Your task to perform on an android device: toggle priority inbox in the gmail app Image 0: 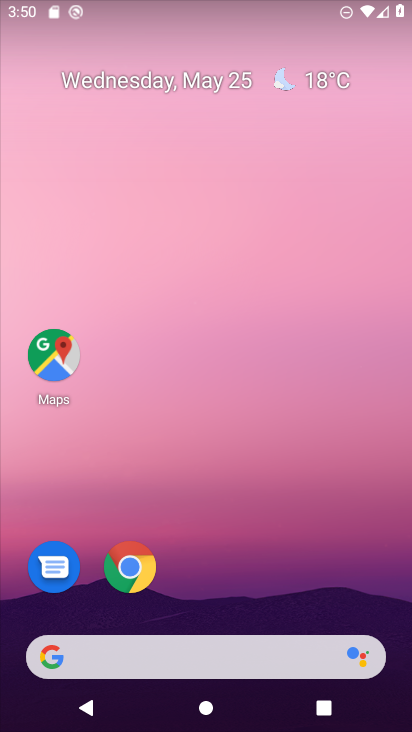
Step 0: drag from (385, 573) to (371, 218)
Your task to perform on an android device: toggle priority inbox in the gmail app Image 1: 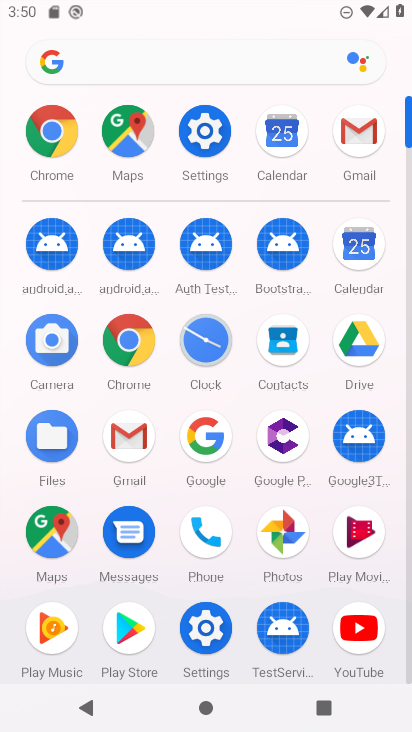
Step 1: click (364, 151)
Your task to perform on an android device: toggle priority inbox in the gmail app Image 2: 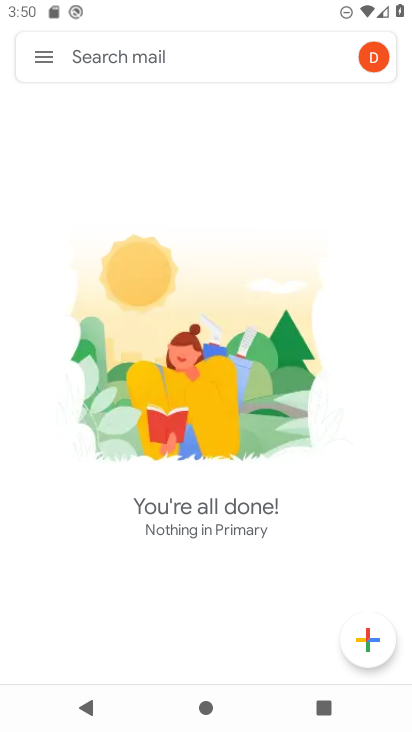
Step 2: click (50, 58)
Your task to perform on an android device: toggle priority inbox in the gmail app Image 3: 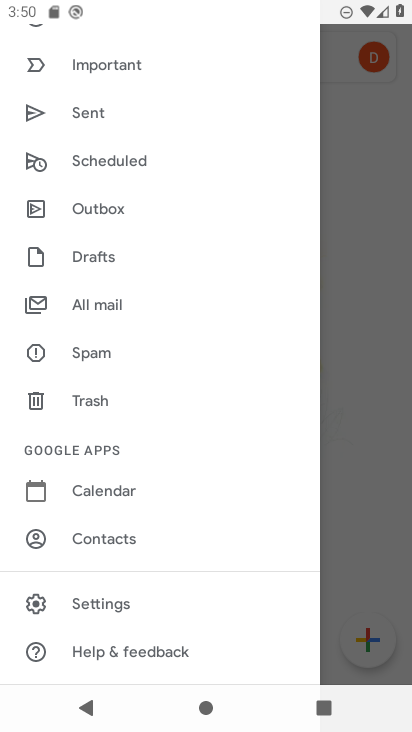
Step 3: drag from (239, 224) to (235, 300)
Your task to perform on an android device: toggle priority inbox in the gmail app Image 4: 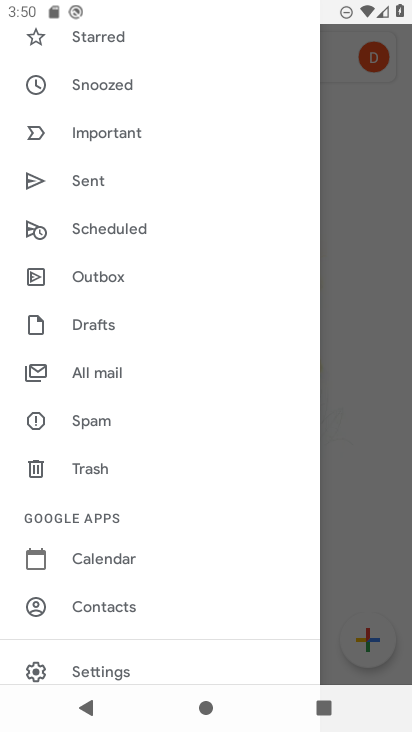
Step 4: drag from (232, 176) to (230, 253)
Your task to perform on an android device: toggle priority inbox in the gmail app Image 5: 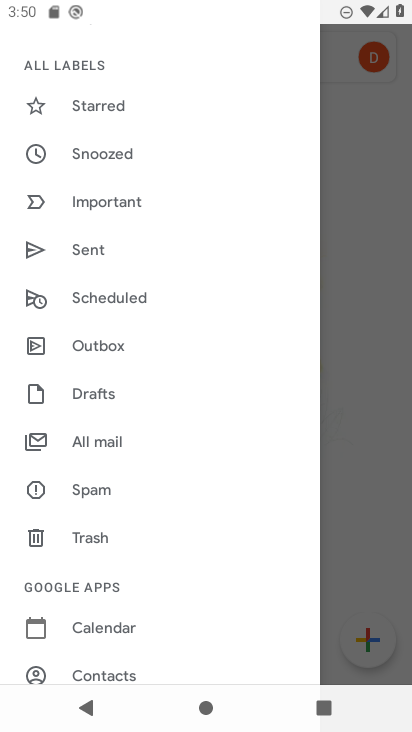
Step 5: drag from (233, 150) to (233, 220)
Your task to perform on an android device: toggle priority inbox in the gmail app Image 6: 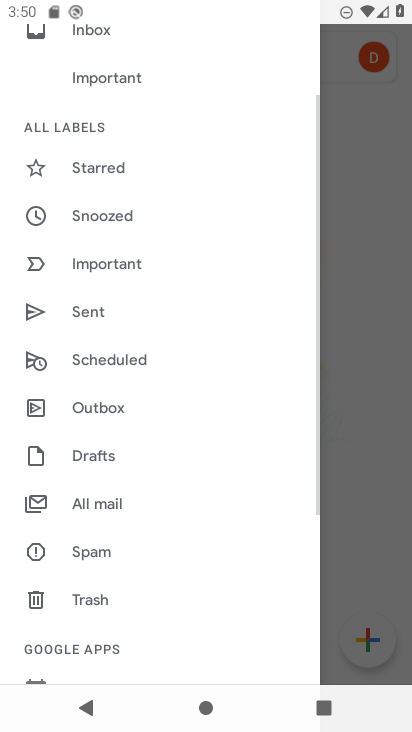
Step 6: drag from (236, 139) to (234, 244)
Your task to perform on an android device: toggle priority inbox in the gmail app Image 7: 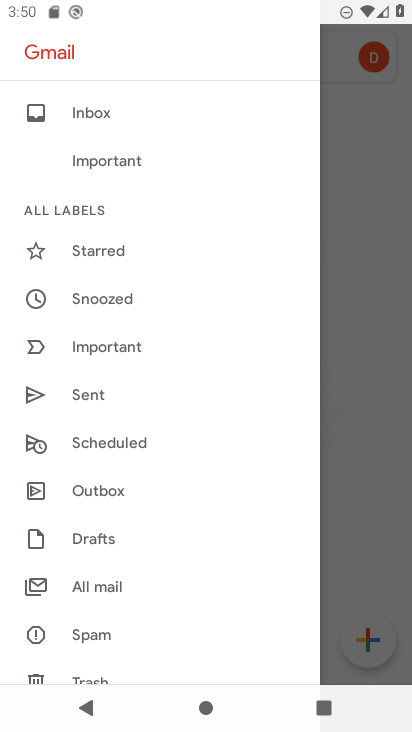
Step 7: drag from (250, 358) to (236, 279)
Your task to perform on an android device: toggle priority inbox in the gmail app Image 8: 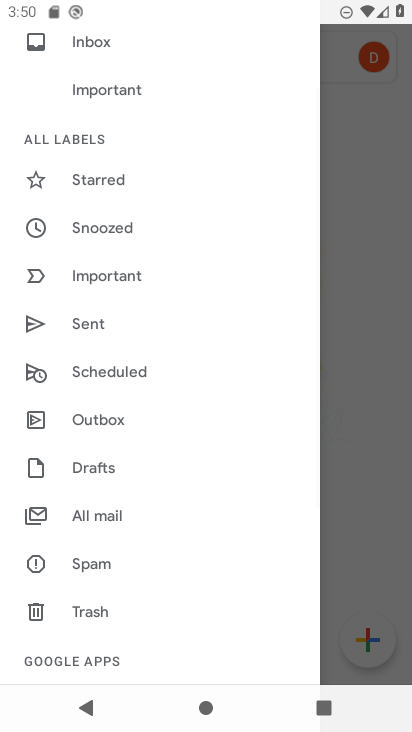
Step 8: drag from (229, 383) to (228, 308)
Your task to perform on an android device: toggle priority inbox in the gmail app Image 9: 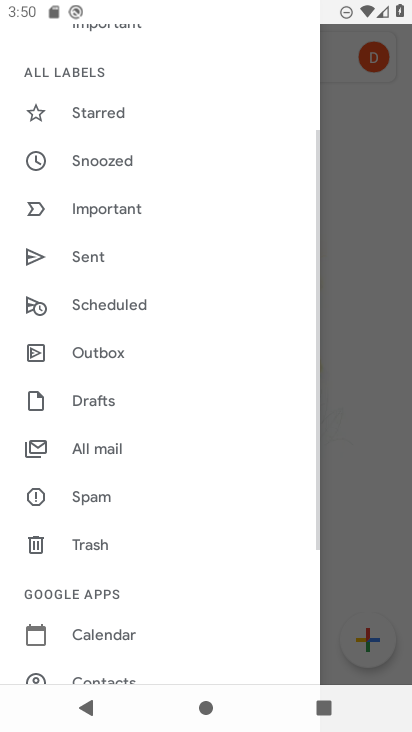
Step 9: drag from (240, 420) to (253, 330)
Your task to perform on an android device: toggle priority inbox in the gmail app Image 10: 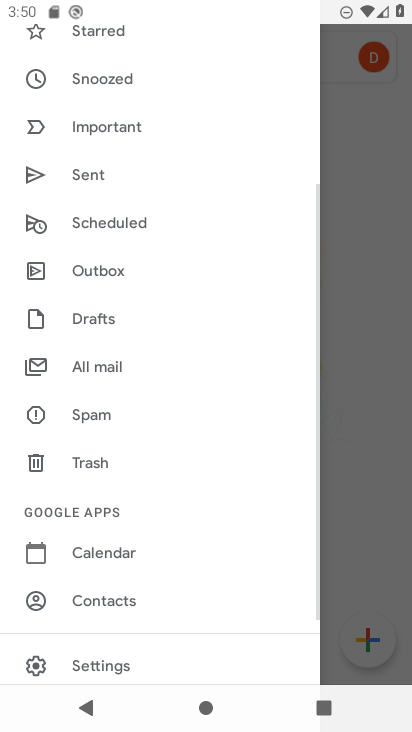
Step 10: drag from (228, 460) to (240, 336)
Your task to perform on an android device: toggle priority inbox in the gmail app Image 11: 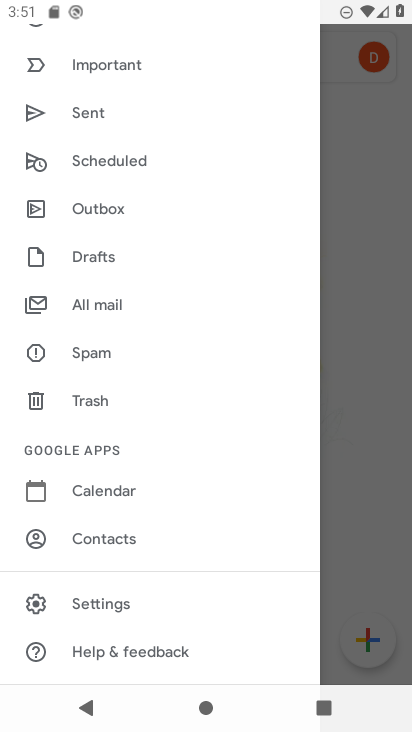
Step 11: click (181, 600)
Your task to perform on an android device: toggle priority inbox in the gmail app Image 12: 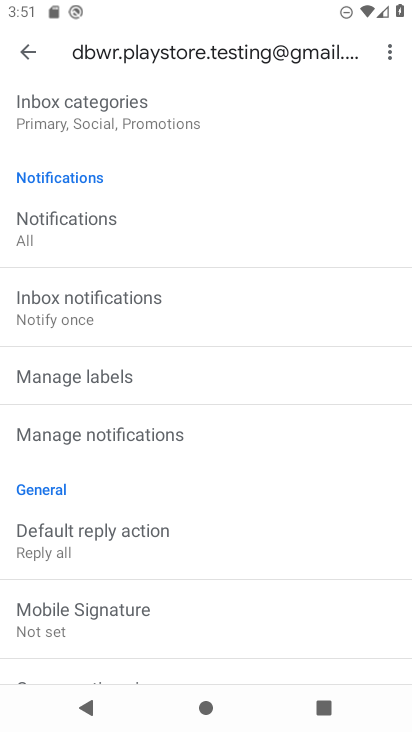
Step 12: drag from (258, 563) to (294, 455)
Your task to perform on an android device: toggle priority inbox in the gmail app Image 13: 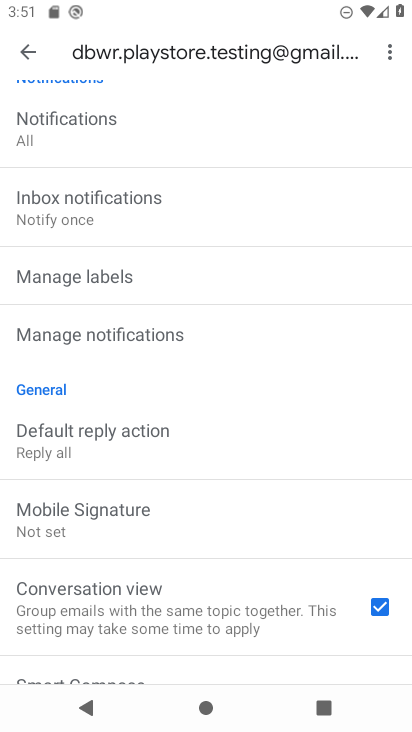
Step 13: drag from (293, 539) to (294, 443)
Your task to perform on an android device: toggle priority inbox in the gmail app Image 14: 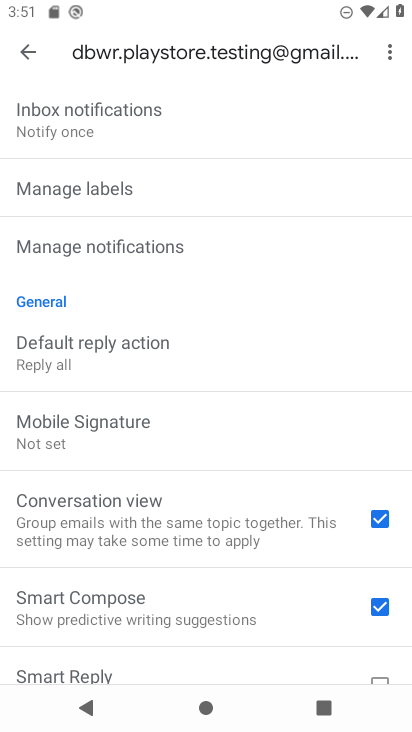
Step 14: drag from (287, 594) to (282, 501)
Your task to perform on an android device: toggle priority inbox in the gmail app Image 15: 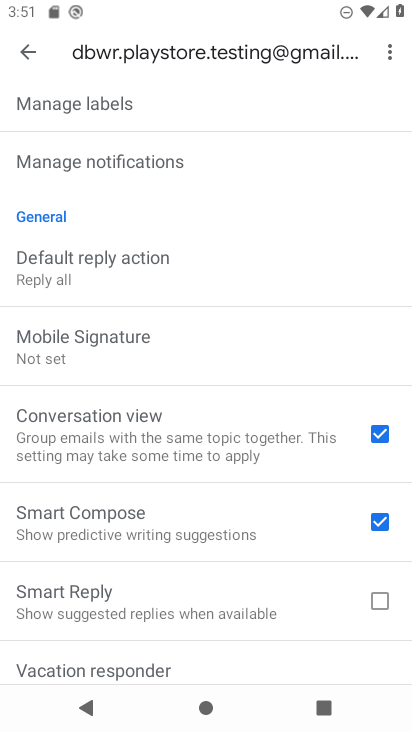
Step 15: drag from (268, 589) to (296, 484)
Your task to perform on an android device: toggle priority inbox in the gmail app Image 16: 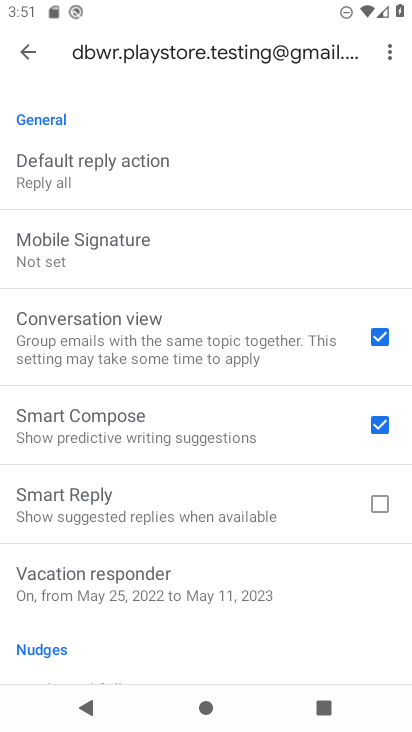
Step 16: drag from (317, 532) to (317, 442)
Your task to perform on an android device: toggle priority inbox in the gmail app Image 17: 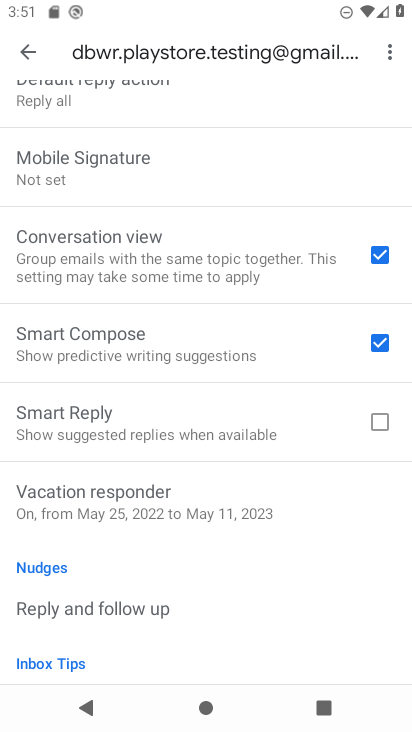
Step 17: drag from (327, 543) to (329, 450)
Your task to perform on an android device: toggle priority inbox in the gmail app Image 18: 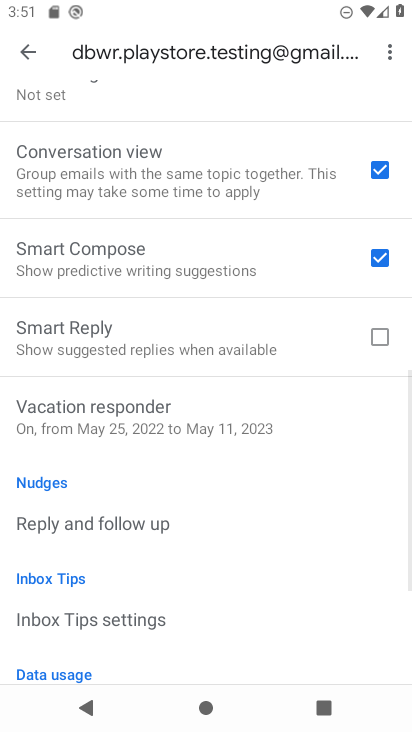
Step 18: drag from (326, 581) to (332, 482)
Your task to perform on an android device: toggle priority inbox in the gmail app Image 19: 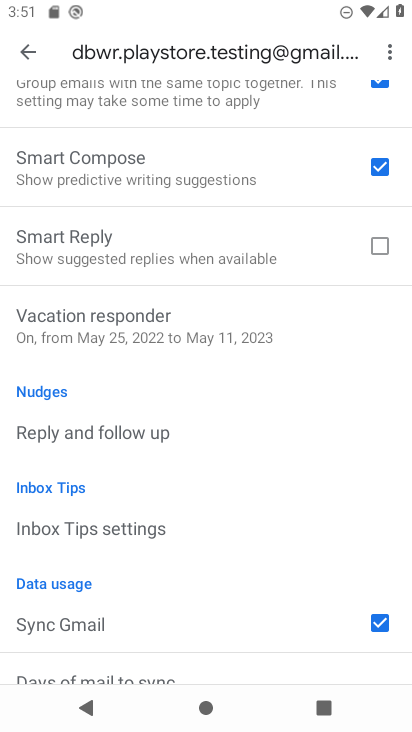
Step 19: drag from (312, 607) to (299, 505)
Your task to perform on an android device: toggle priority inbox in the gmail app Image 20: 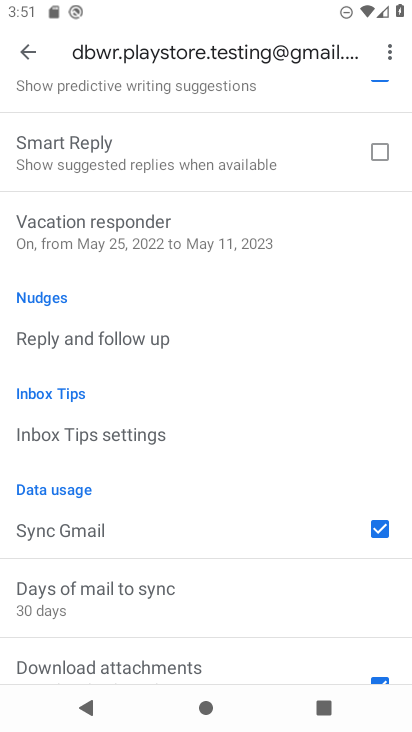
Step 20: drag from (291, 617) to (280, 484)
Your task to perform on an android device: toggle priority inbox in the gmail app Image 21: 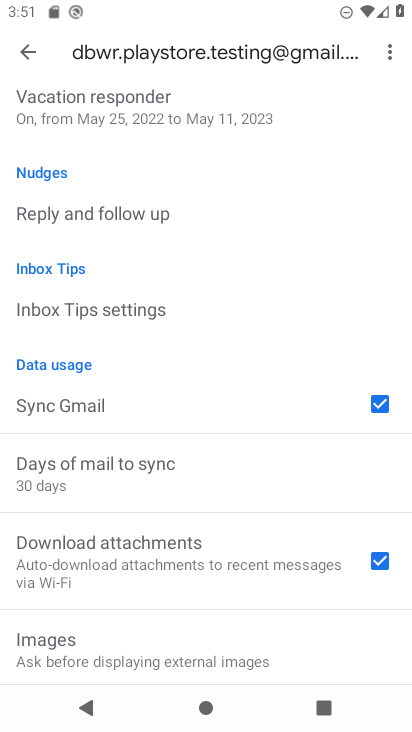
Step 21: drag from (295, 301) to (295, 448)
Your task to perform on an android device: toggle priority inbox in the gmail app Image 22: 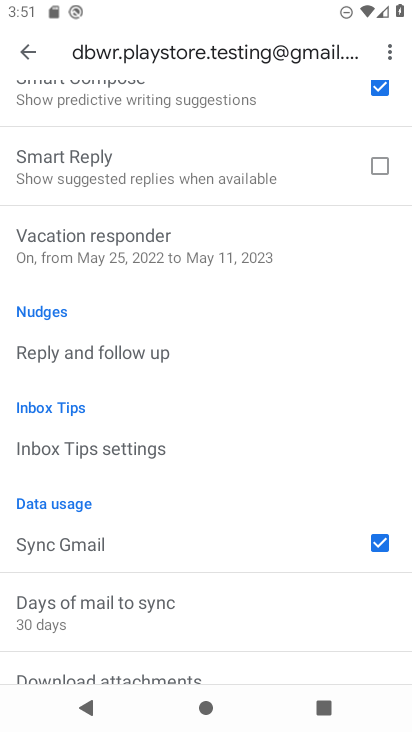
Step 22: drag from (287, 321) to (299, 440)
Your task to perform on an android device: toggle priority inbox in the gmail app Image 23: 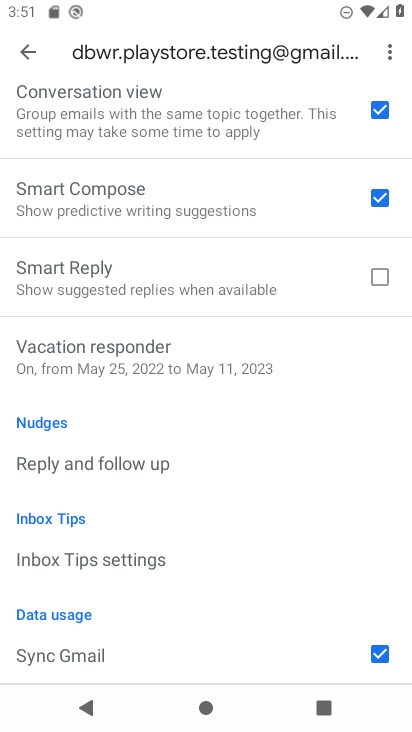
Step 23: drag from (309, 266) to (316, 360)
Your task to perform on an android device: toggle priority inbox in the gmail app Image 24: 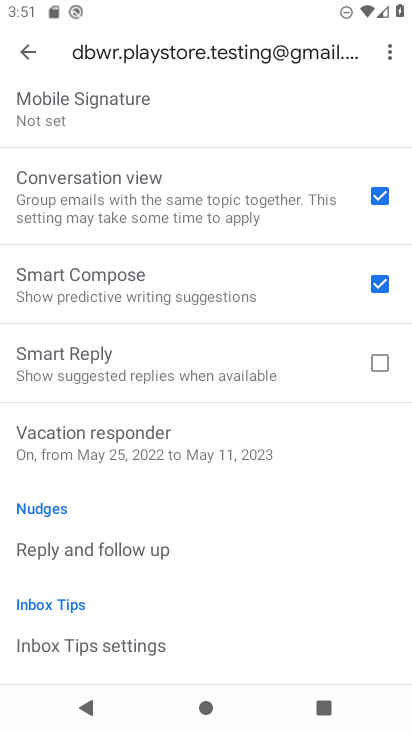
Step 24: drag from (305, 244) to (319, 342)
Your task to perform on an android device: toggle priority inbox in the gmail app Image 25: 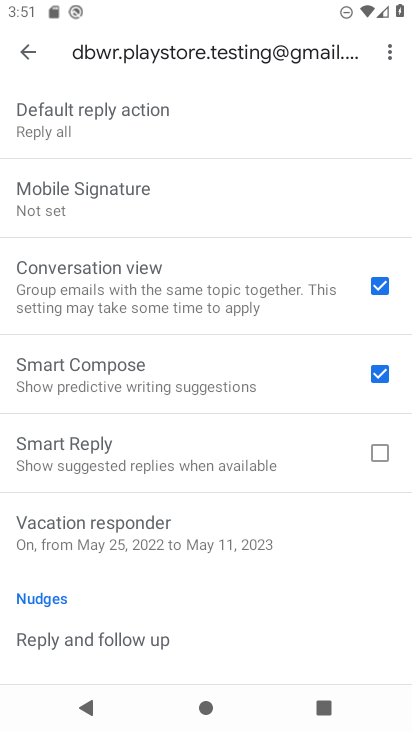
Step 25: drag from (299, 222) to (277, 341)
Your task to perform on an android device: toggle priority inbox in the gmail app Image 26: 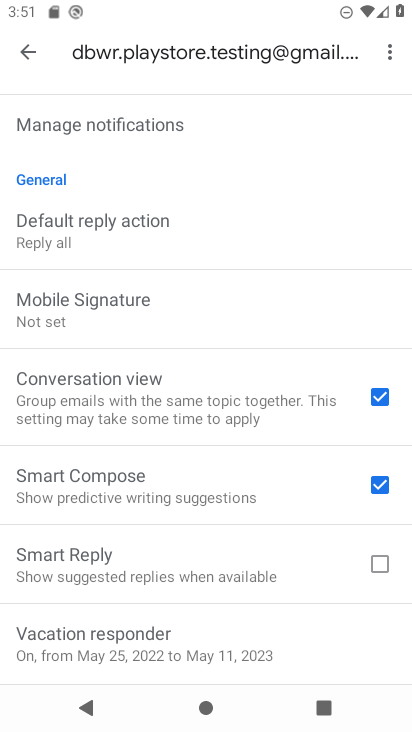
Step 26: drag from (277, 219) to (284, 319)
Your task to perform on an android device: toggle priority inbox in the gmail app Image 27: 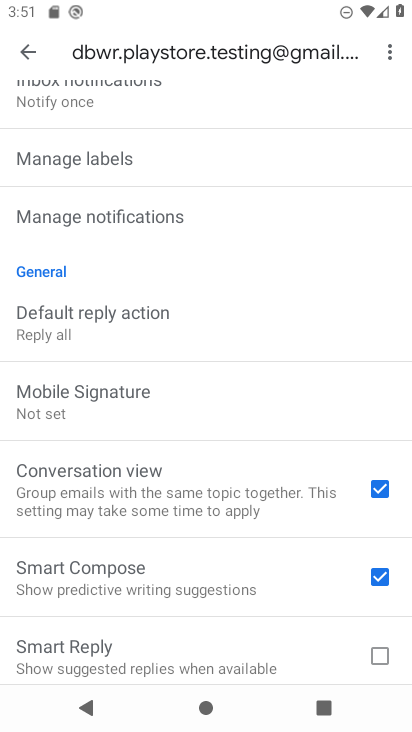
Step 27: drag from (276, 207) to (282, 315)
Your task to perform on an android device: toggle priority inbox in the gmail app Image 28: 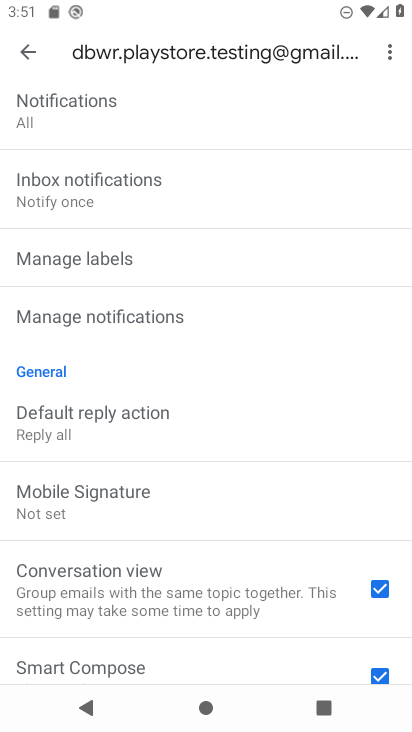
Step 28: drag from (258, 267) to (275, 366)
Your task to perform on an android device: toggle priority inbox in the gmail app Image 29: 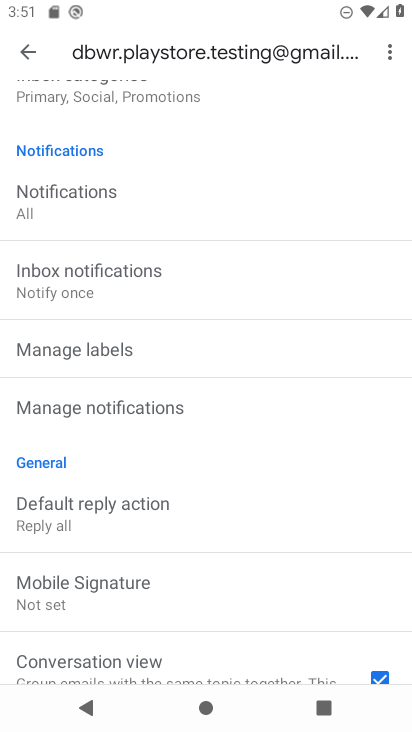
Step 29: drag from (251, 192) to (266, 320)
Your task to perform on an android device: toggle priority inbox in the gmail app Image 30: 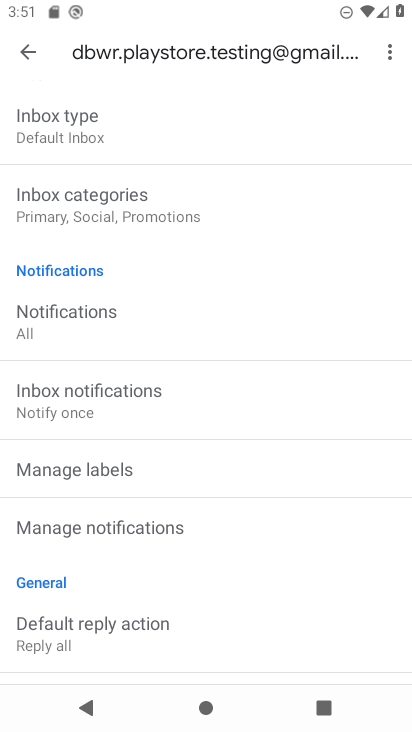
Step 30: click (105, 146)
Your task to perform on an android device: toggle priority inbox in the gmail app Image 31: 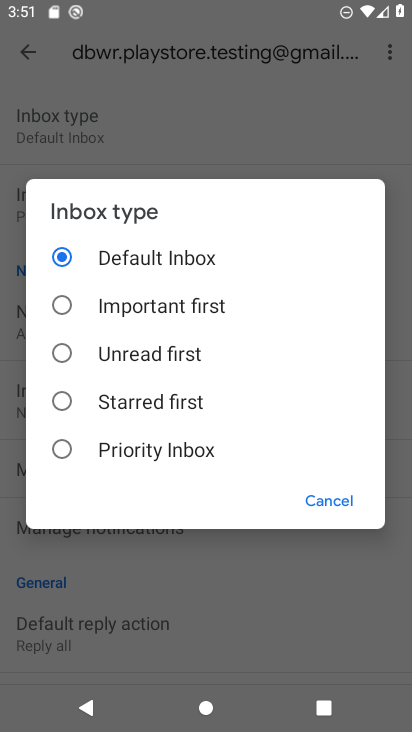
Step 31: click (157, 448)
Your task to perform on an android device: toggle priority inbox in the gmail app Image 32: 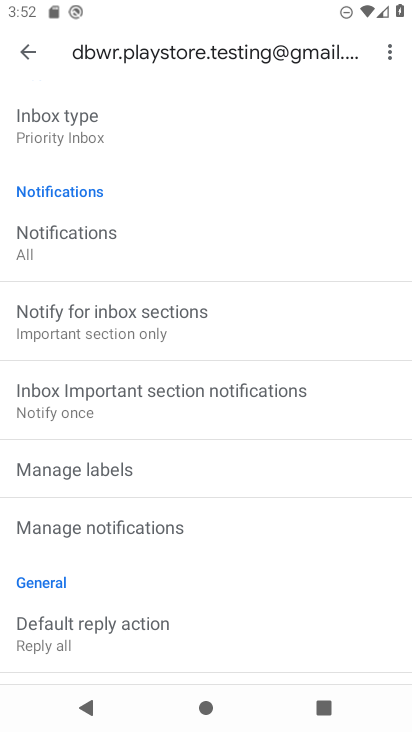
Step 32: task complete